Your task to perform on an android device: Add macbook pro 13 inch to the cart on target Image 0: 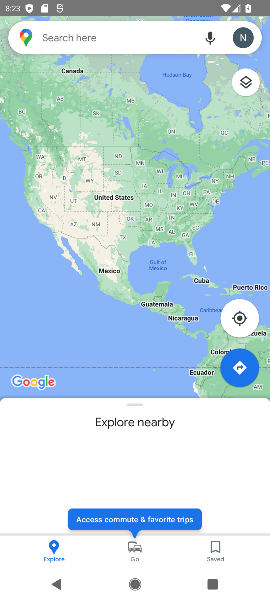
Step 0: press home button
Your task to perform on an android device: Add macbook pro 13 inch to the cart on target Image 1: 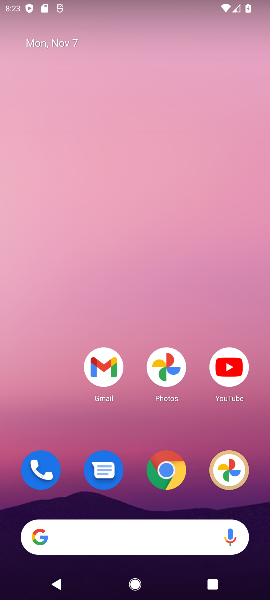
Step 1: click (169, 477)
Your task to perform on an android device: Add macbook pro 13 inch to the cart on target Image 2: 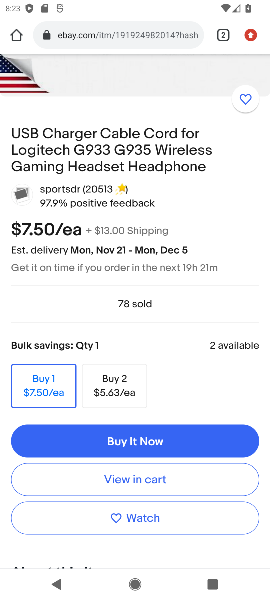
Step 2: click (134, 35)
Your task to perform on an android device: Add macbook pro 13 inch to the cart on target Image 3: 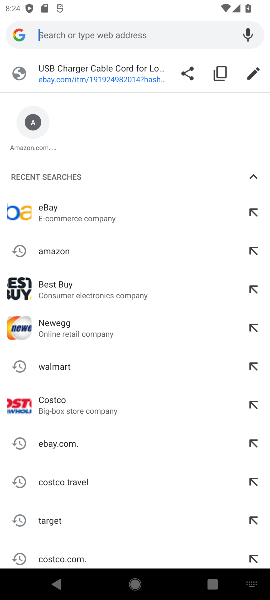
Step 3: click (41, 521)
Your task to perform on an android device: Add macbook pro 13 inch to the cart on target Image 4: 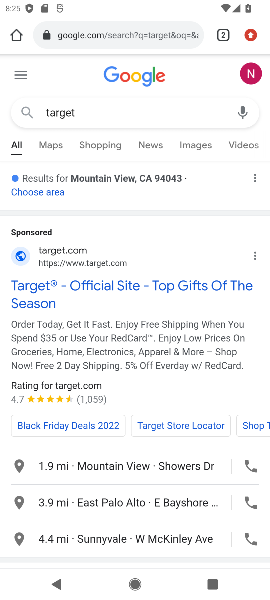
Step 4: click (79, 293)
Your task to perform on an android device: Add macbook pro 13 inch to the cart on target Image 5: 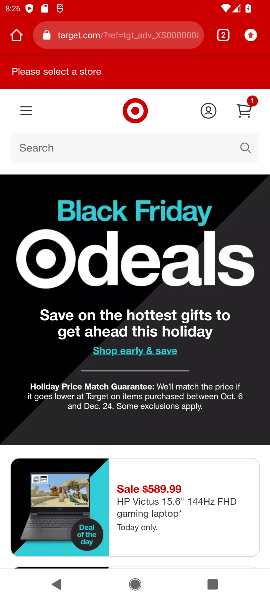
Step 5: click (86, 143)
Your task to perform on an android device: Add macbook pro 13 inch to the cart on target Image 6: 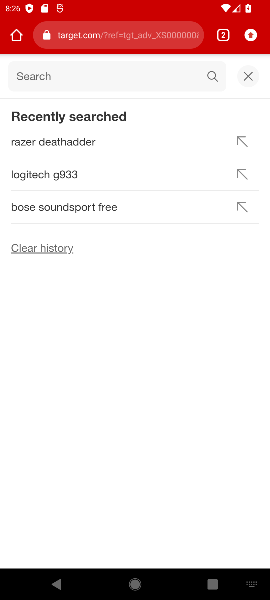
Step 6: type "macbook pro 13"
Your task to perform on an android device: Add macbook pro 13 inch to the cart on target Image 7: 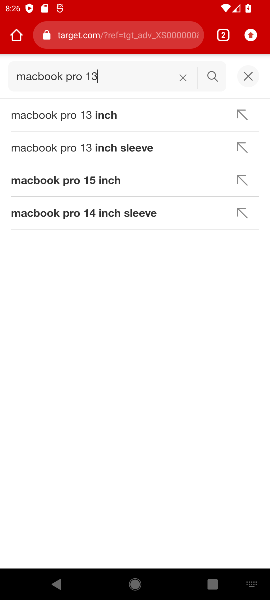
Step 7: click (54, 113)
Your task to perform on an android device: Add macbook pro 13 inch to the cart on target Image 8: 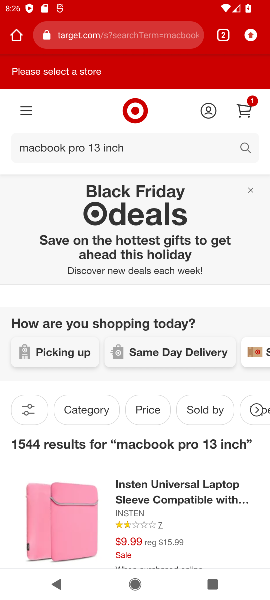
Step 8: drag from (146, 498) to (133, 129)
Your task to perform on an android device: Add macbook pro 13 inch to the cart on target Image 9: 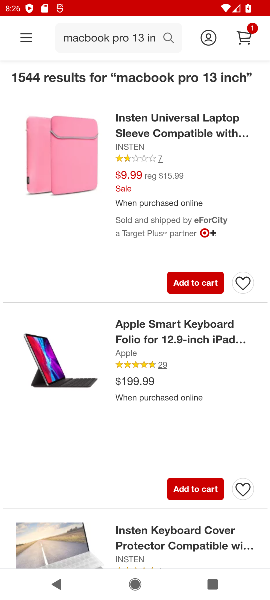
Step 9: drag from (153, 523) to (147, 253)
Your task to perform on an android device: Add macbook pro 13 inch to the cart on target Image 10: 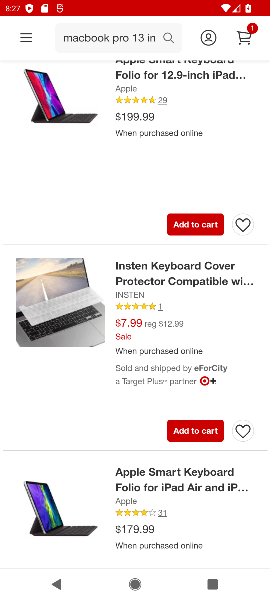
Step 10: drag from (169, 496) to (180, 114)
Your task to perform on an android device: Add macbook pro 13 inch to the cart on target Image 11: 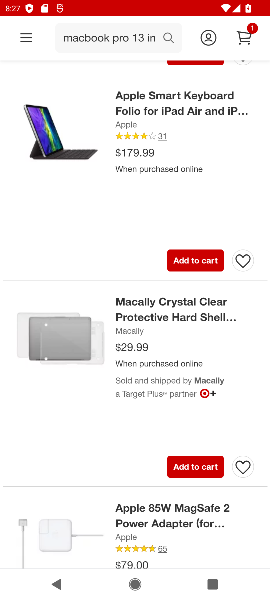
Step 11: click (186, 260)
Your task to perform on an android device: Add macbook pro 13 inch to the cart on target Image 12: 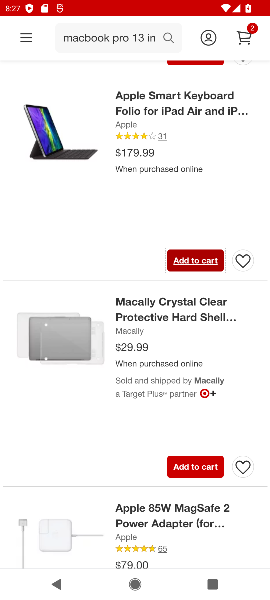
Step 12: task complete